Your task to perform on an android device: manage bookmarks in the chrome app Image 0: 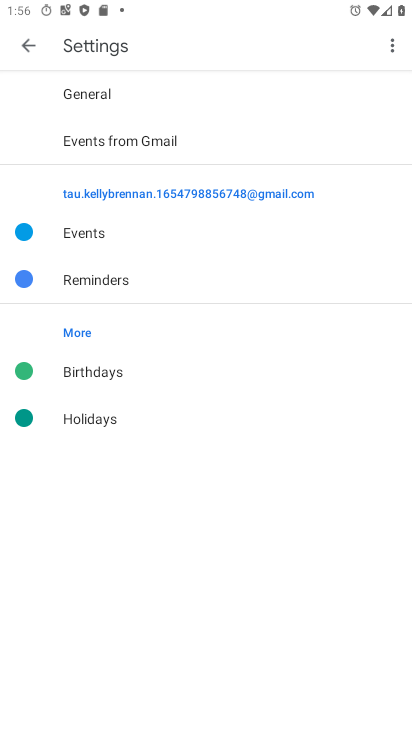
Step 0: press home button
Your task to perform on an android device: manage bookmarks in the chrome app Image 1: 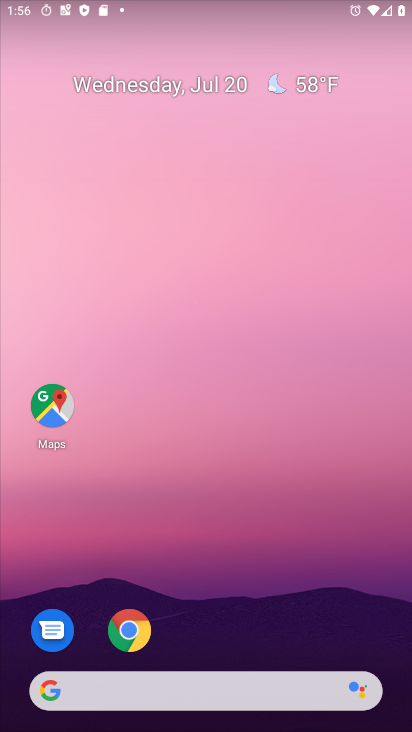
Step 1: click (128, 633)
Your task to perform on an android device: manage bookmarks in the chrome app Image 2: 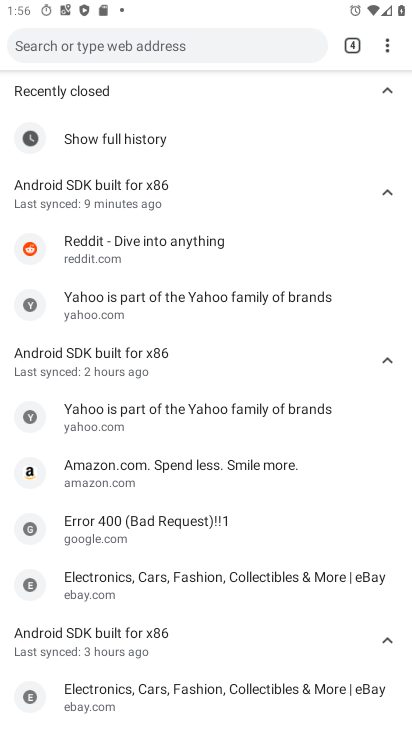
Step 2: drag from (385, 51) to (280, 168)
Your task to perform on an android device: manage bookmarks in the chrome app Image 3: 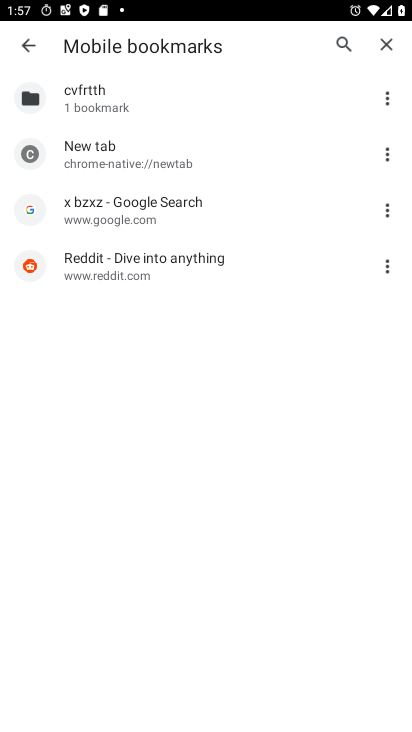
Step 3: click (388, 150)
Your task to perform on an android device: manage bookmarks in the chrome app Image 4: 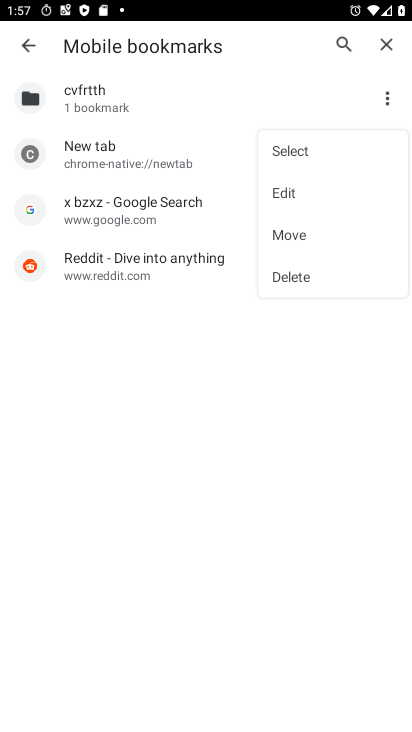
Step 4: click (307, 235)
Your task to perform on an android device: manage bookmarks in the chrome app Image 5: 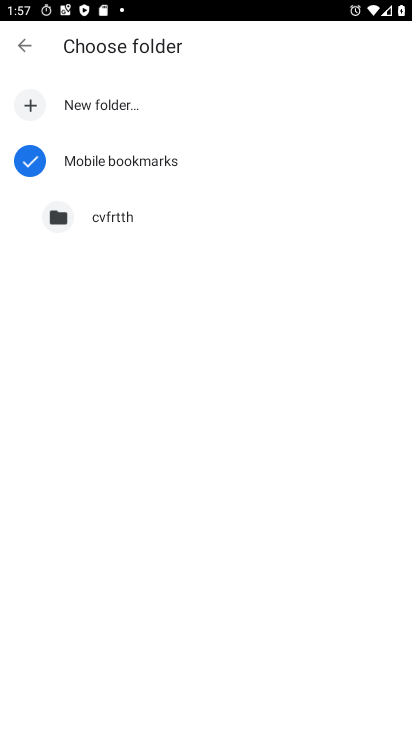
Step 5: click (104, 213)
Your task to perform on an android device: manage bookmarks in the chrome app Image 6: 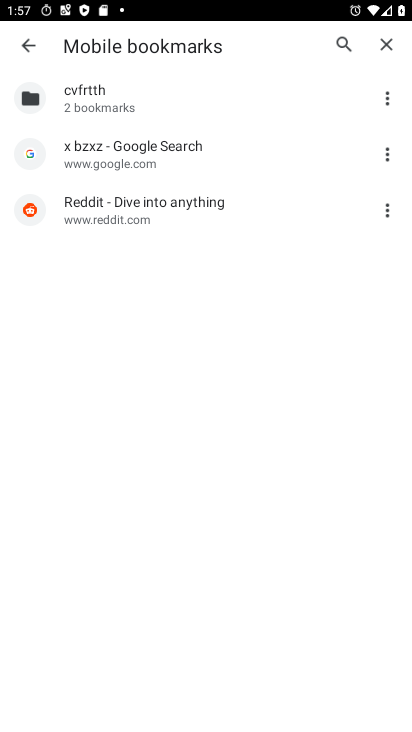
Step 6: task complete